Your task to perform on an android device: make emails show in primary in the gmail app Image 0: 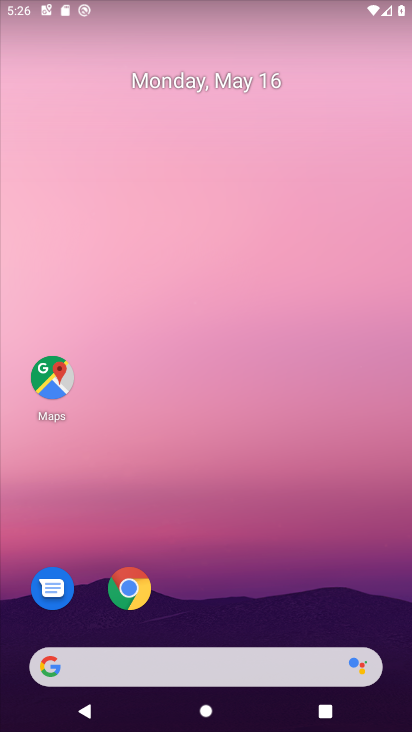
Step 0: drag from (264, 562) to (216, 44)
Your task to perform on an android device: make emails show in primary in the gmail app Image 1: 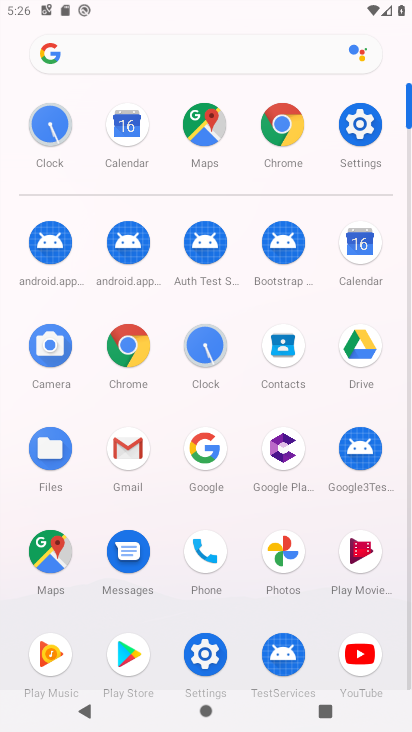
Step 1: click (133, 445)
Your task to perform on an android device: make emails show in primary in the gmail app Image 2: 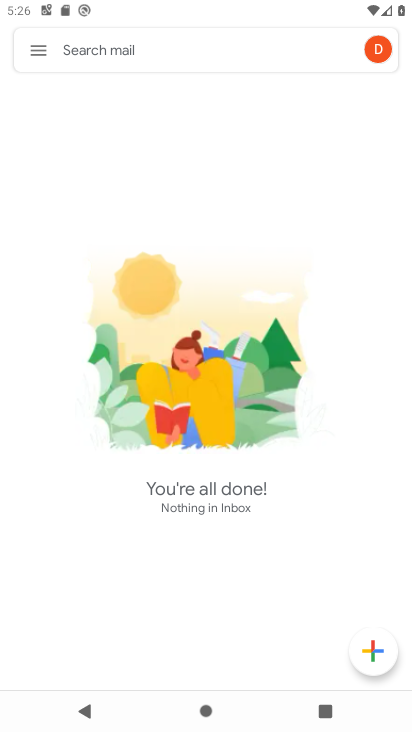
Step 2: click (41, 45)
Your task to perform on an android device: make emails show in primary in the gmail app Image 3: 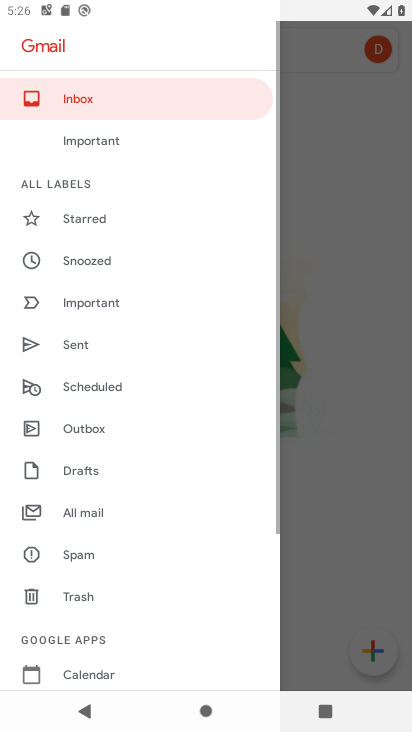
Step 3: task complete